Your task to perform on an android device: Open calendar and show me the second week of next month Image 0: 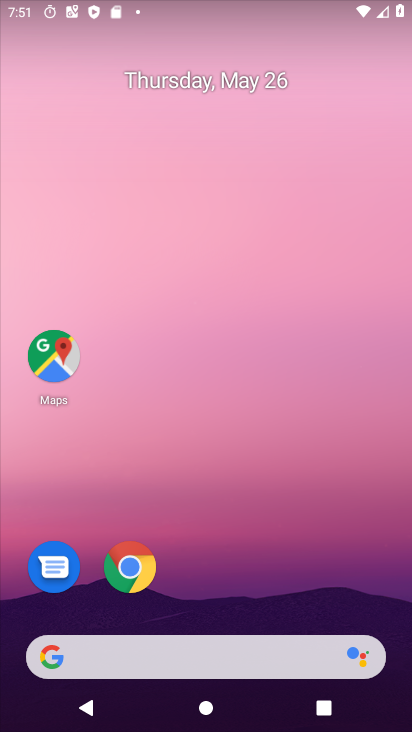
Step 0: press home button
Your task to perform on an android device: Open calendar and show me the second week of next month Image 1: 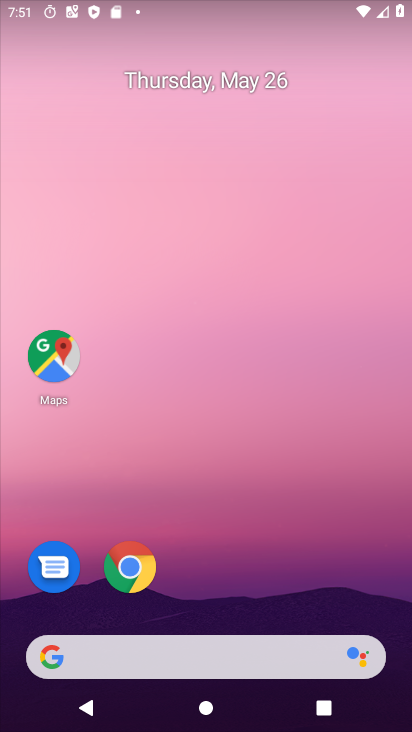
Step 1: drag from (195, 590) to (308, 117)
Your task to perform on an android device: Open calendar and show me the second week of next month Image 2: 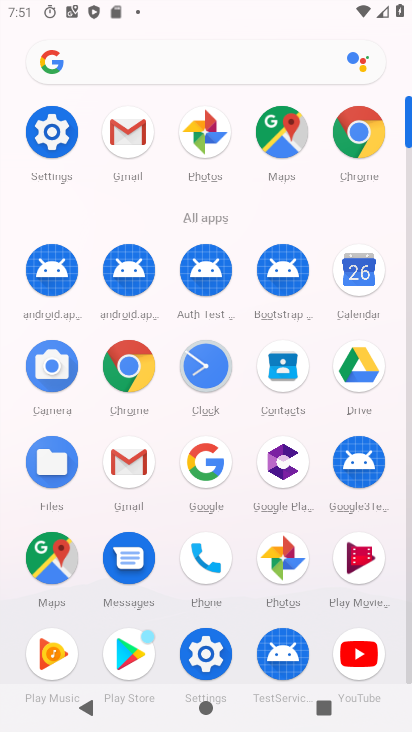
Step 2: click (363, 279)
Your task to perform on an android device: Open calendar and show me the second week of next month Image 3: 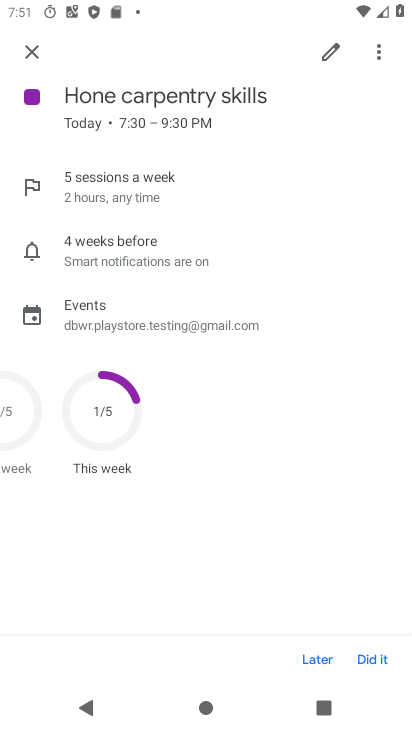
Step 3: click (27, 48)
Your task to perform on an android device: Open calendar and show me the second week of next month Image 4: 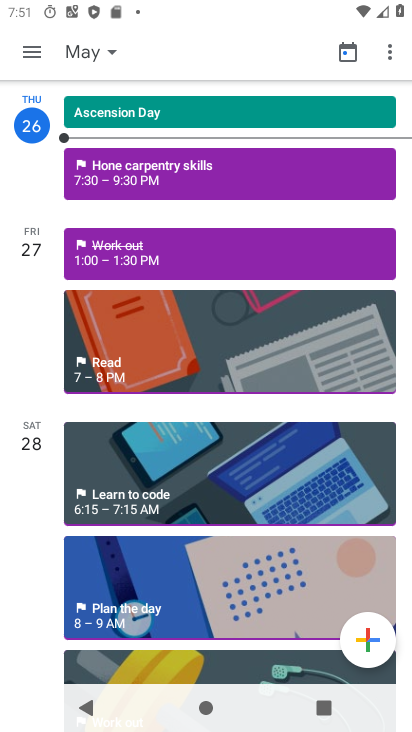
Step 4: click (89, 47)
Your task to perform on an android device: Open calendar and show me the second week of next month Image 5: 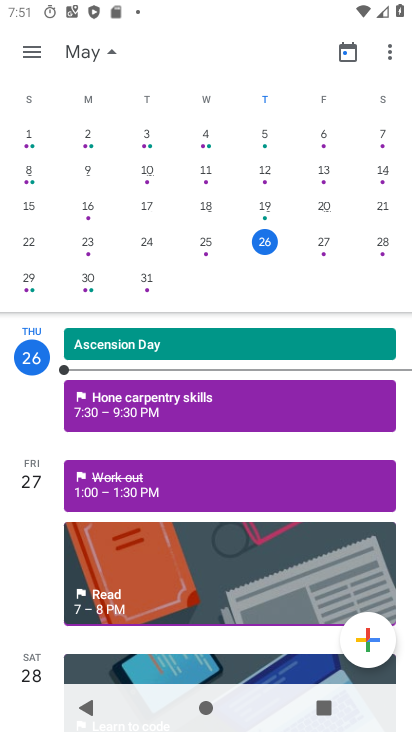
Step 5: drag from (356, 188) to (2, 204)
Your task to perform on an android device: Open calendar and show me the second week of next month Image 6: 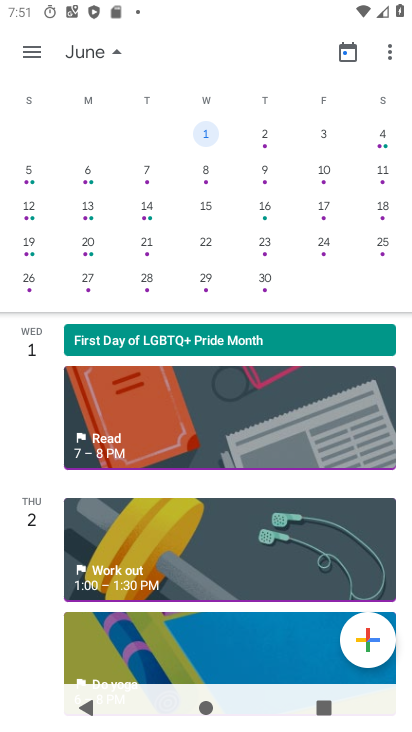
Step 6: click (29, 171)
Your task to perform on an android device: Open calendar and show me the second week of next month Image 7: 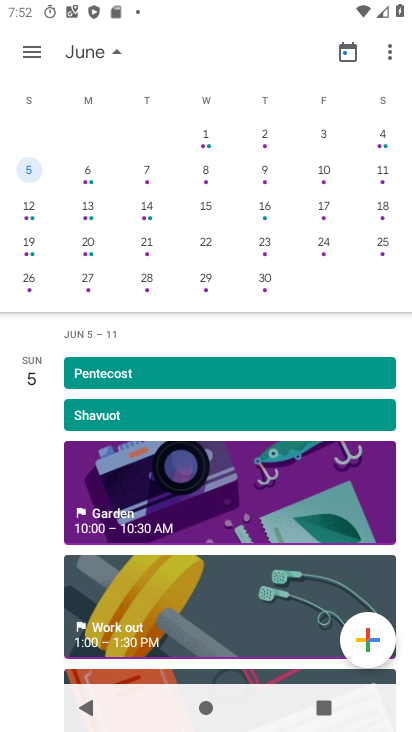
Step 7: click (82, 53)
Your task to perform on an android device: Open calendar and show me the second week of next month Image 8: 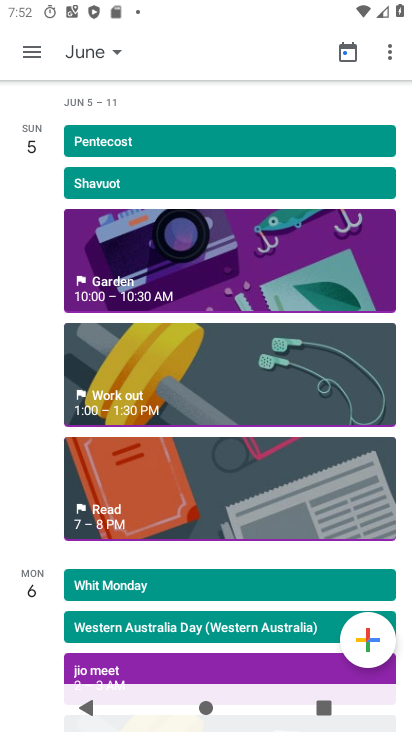
Step 8: click (89, 51)
Your task to perform on an android device: Open calendar and show me the second week of next month Image 9: 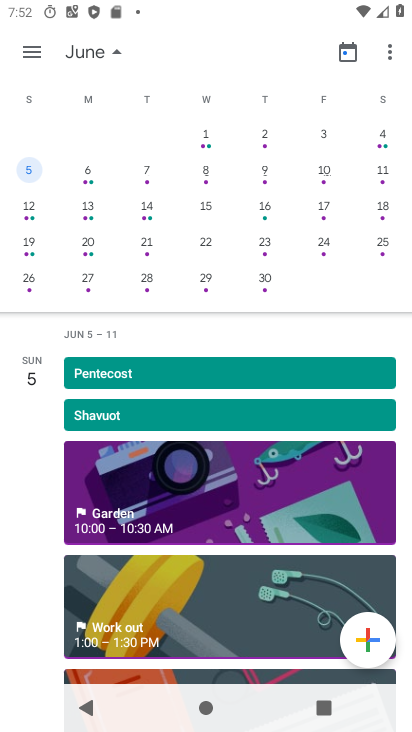
Step 9: click (89, 52)
Your task to perform on an android device: Open calendar and show me the second week of next month Image 10: 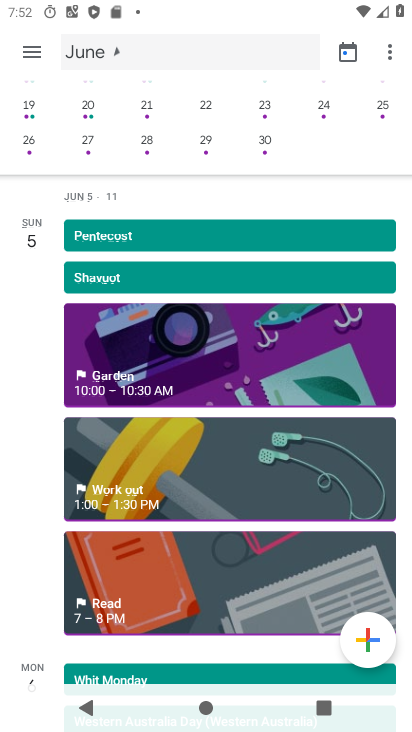
Step 10: click (26, 50)
Your task to perform on an android device: Open calendar and show me the second week of next month Image 11: 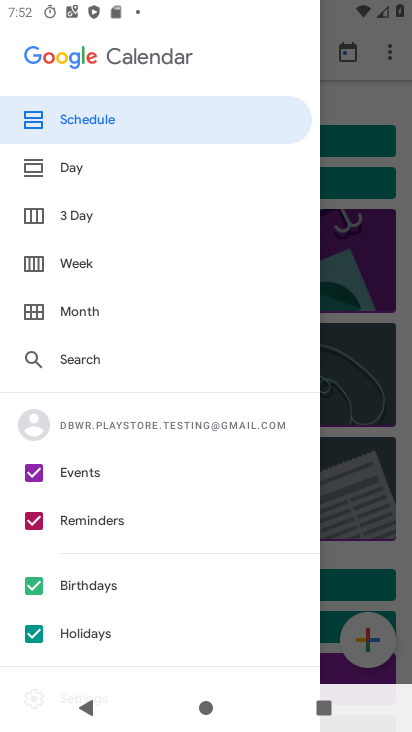
Step 11: click (75, 269)
Your task to perform on an android device: Open calendar and show me the second week of next month Image 12: 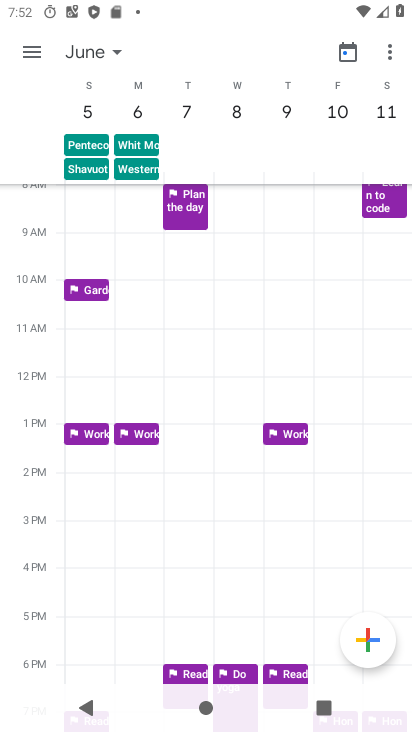
Step 12: task complete